Your task to perform on an android device: Toggle the flashlight Image 0: 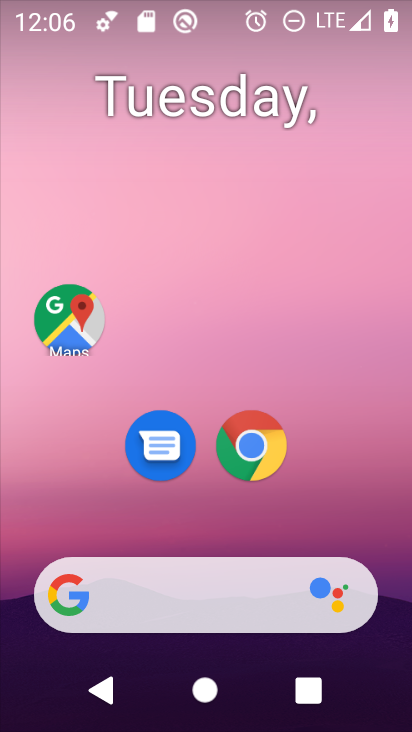
Step 0: drag from (248, 501) to (228, 131)
Your task to perform on an android device: Toggle the flashlight Image 1: 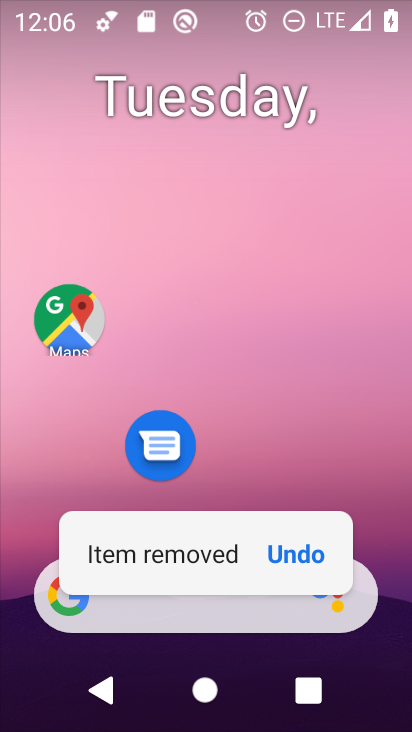
Step 1: drag from (264, 474) to (157, 1)
Your task to perform on an android device: Toggle the flashlight Image 2: 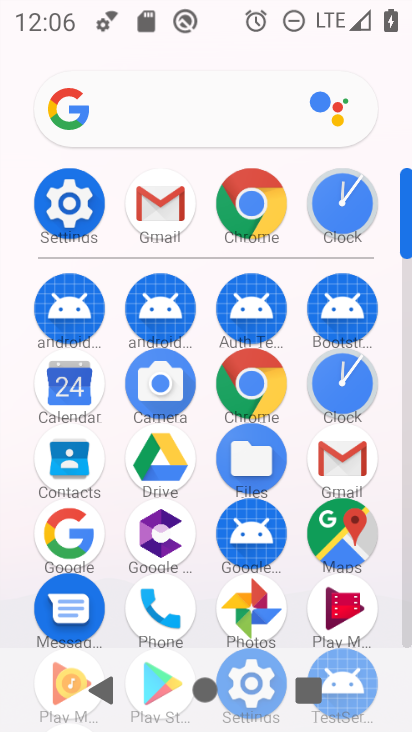
Step 2: click (67, 185)
Your task to perform on an android device: Toggle the flashlight Image 3: 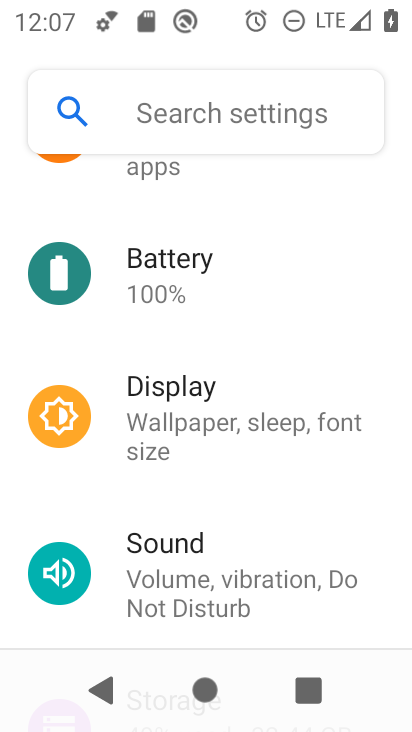
Step 3: drag from (267, 484) to (259, 391)
Your task to perform on an android device: Toggle the flashlight Image 4: 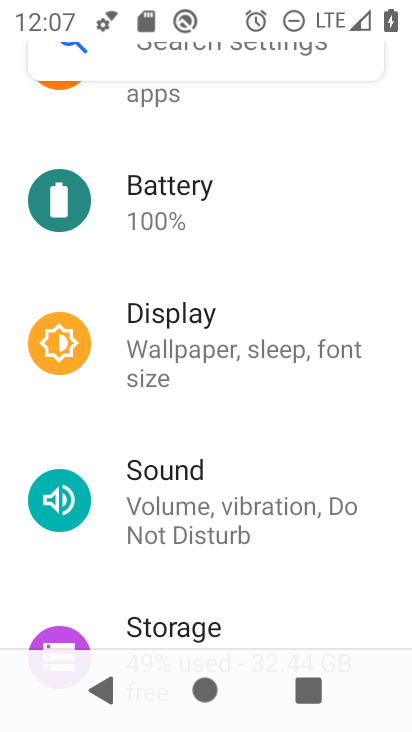
Step 4: click (232, 520)
Your task to perform on an android device: Toggle the flashlight Image 5: 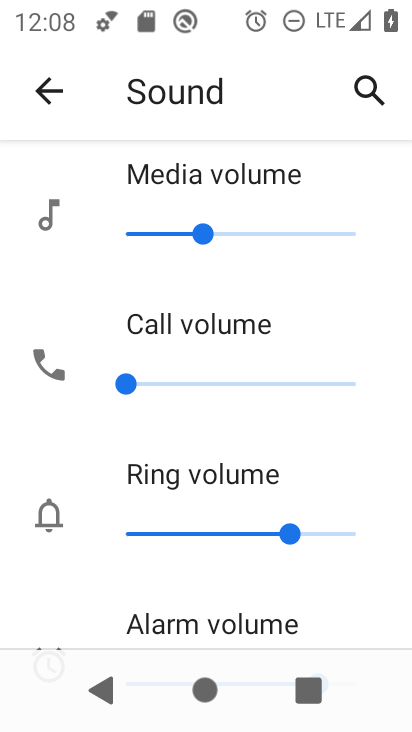
Step 5: task complete